Your task to perform on an android device: Open Google Chrome and open the bookmarks view Image 0: 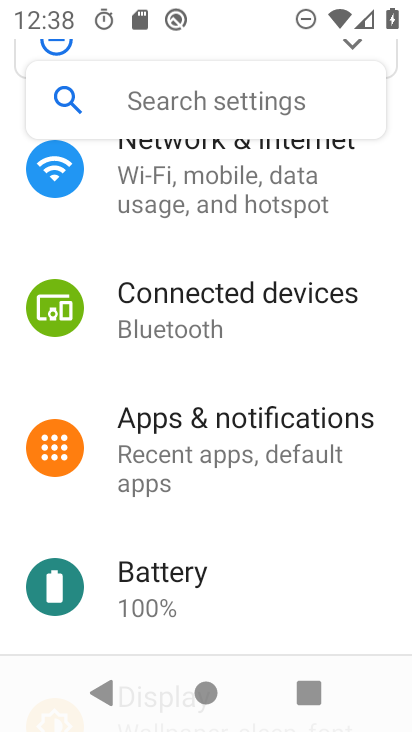
Step 0: press home button
Your task to perform on an android device: Open Google Chrome and open the bookmarks view Image 1: 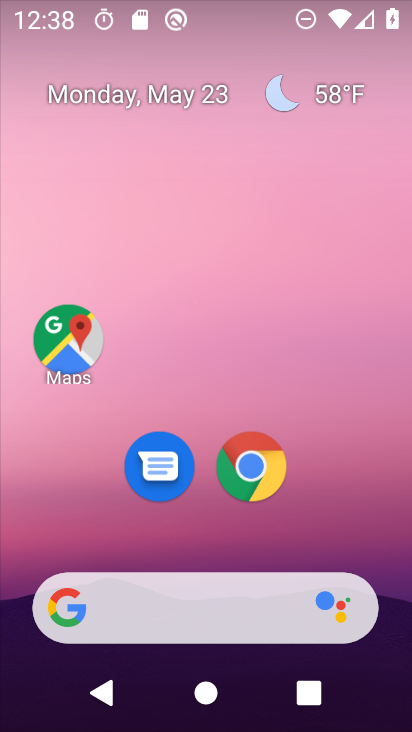
Step 1: click (260, 466)
Your task to perform on an android device: Open Google Chrome and open the bookmarks view Image 2: 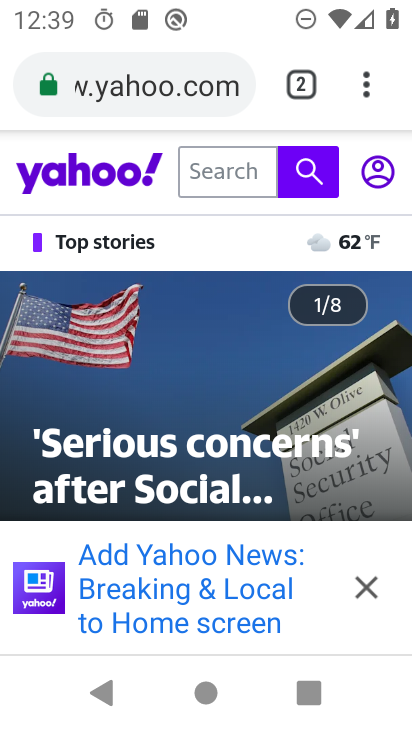
Step 2: click (352, 86)
Your task to perform on an android device: Open Google Chrome and open the bookmarks view Image 3: 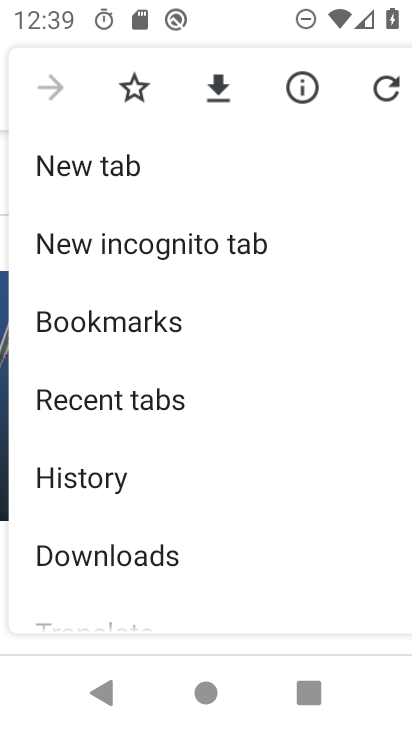
Step 3: click (139, 332)
Your task to perform on an android device: Open Google Chrome and open the bookmarks view Image 4: 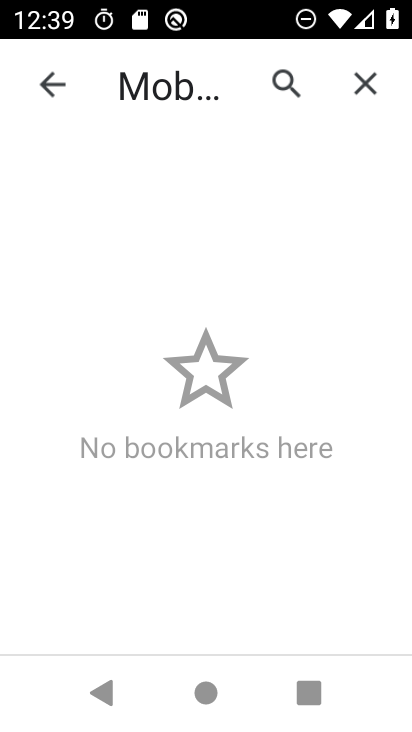
Step 4: task complete